Your task to perform on an android device: Is it going to rain today? Image 0: 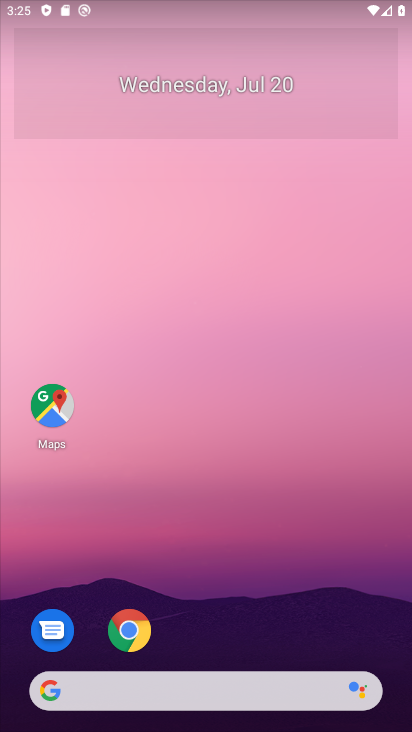
Step 0: click (47, 693)
Your task to perform on an android device: Is it going to rain today? Image 1: 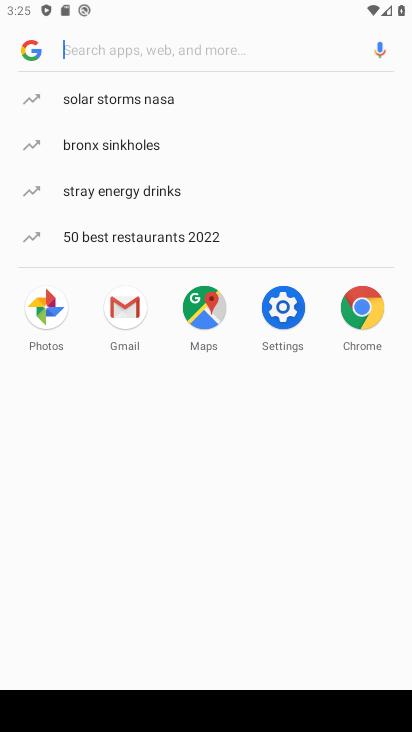
Step 1: type " rain today?"
Your task to perform on an android device: Is it going to rain today? Image 2: 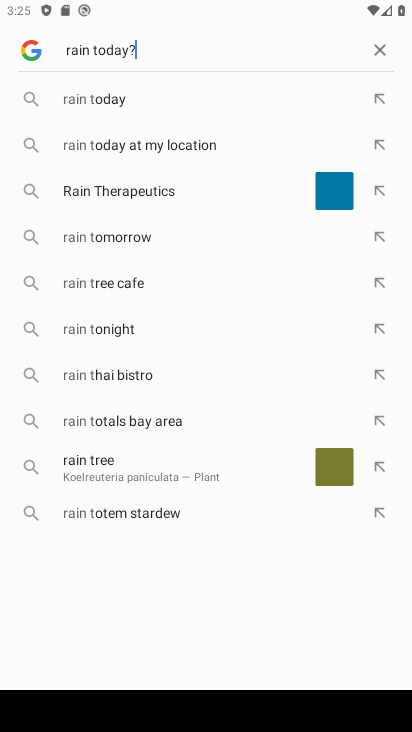
Step 2: press enter
Your task to perform on an android device: Is it going to rain today? Image 3: 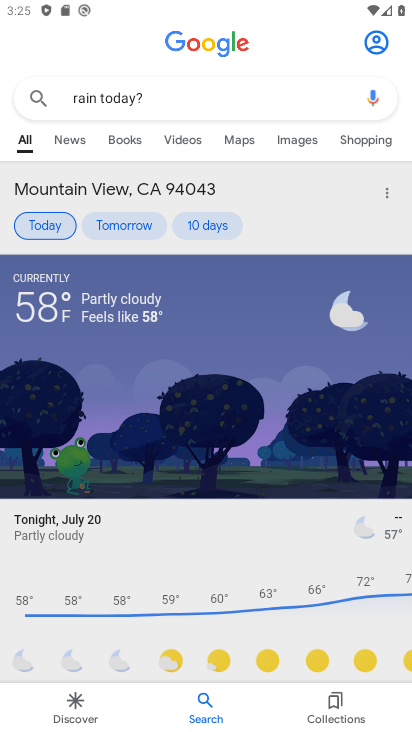
Step 3: task complete